Your task to perform on an android device: Open Youtube and go to the subscriptions tab Image 0: 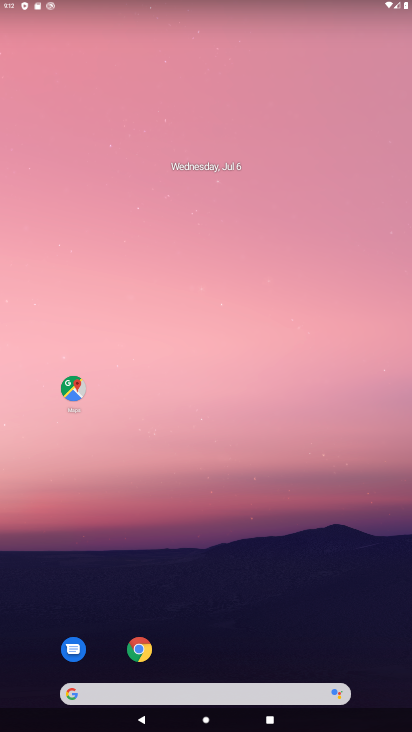
Step 0: drag from (246, 496) to (265, 4)
Your task to perform on an android device: Open Youtube and go to the subscriptions tab Image 1: 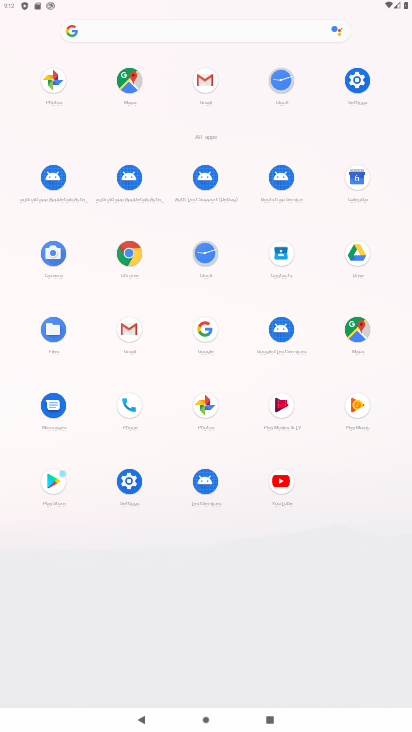
Step 1: click (282, 499)
Your task to perform on an android device: Open Youtube and go to the subscriptions tab Image 2: 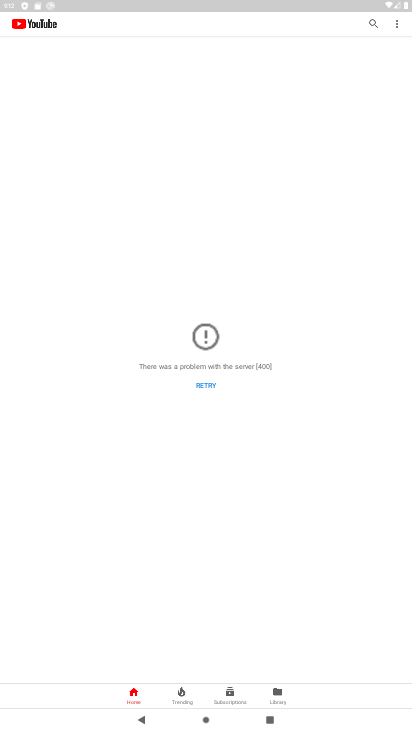
Step 2: click (231, 694)
Your task to perform on an android device: Open Youtube and go to the subscriptions tab Image 3: 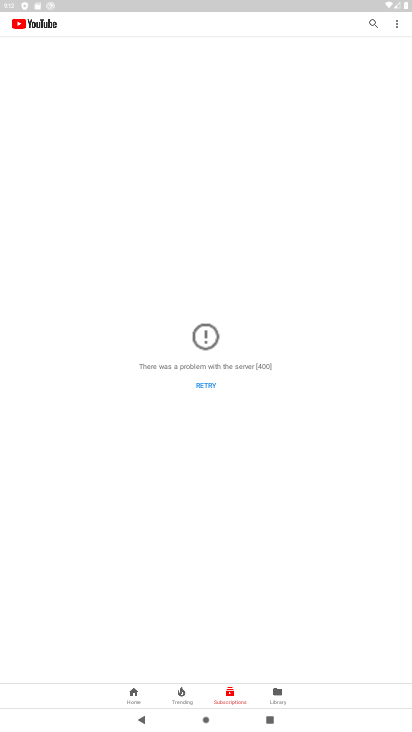
Step 3: task complete